Your task to perform on an android device: toggle javascript in the chrome app Image 0: 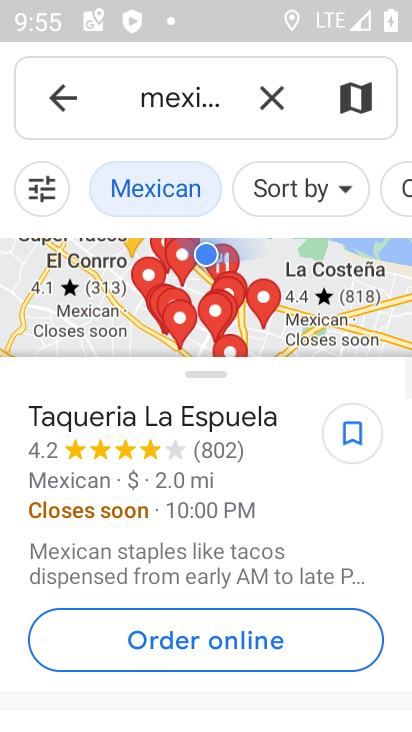
Step 0: press home button
Your task to perform on an android device: toggle javascript in the chrome app Image 1: 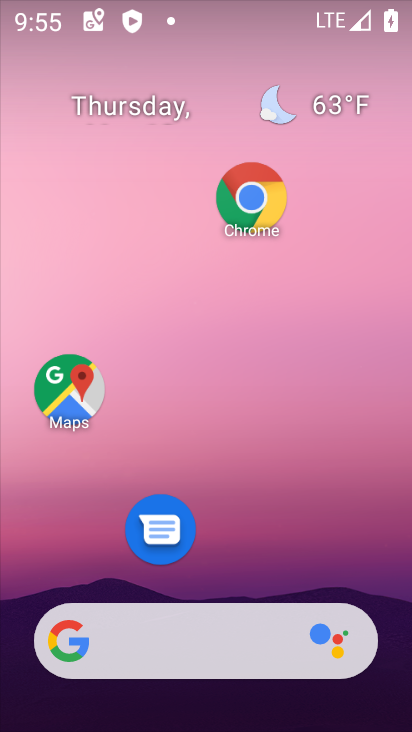
Step 1: click (257, 207)
Your task to perform on an android device: toggle javascript in the chrome app Image 2: 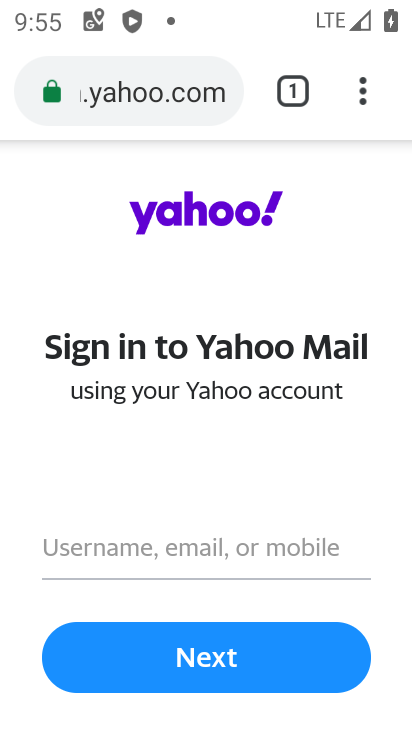
Step 2: click (375, 103)
Your task to perform on an android device: toggle javascript in the chrome app Image 3: 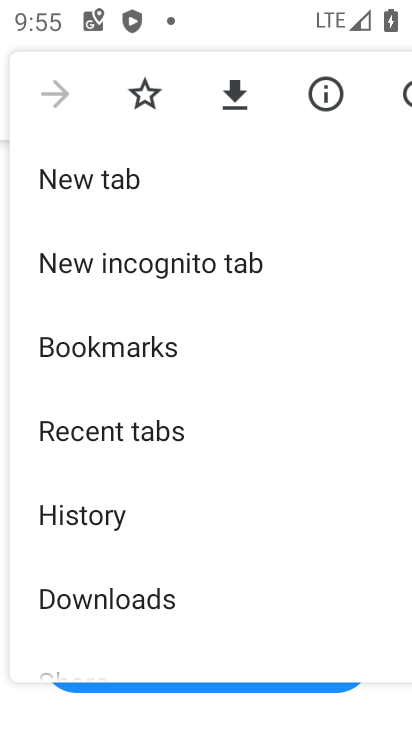
Step 3: drag from (179, 592) to (238, 43)
Your task to perform on an android device: toggle javascript in the chrome app Image 4: 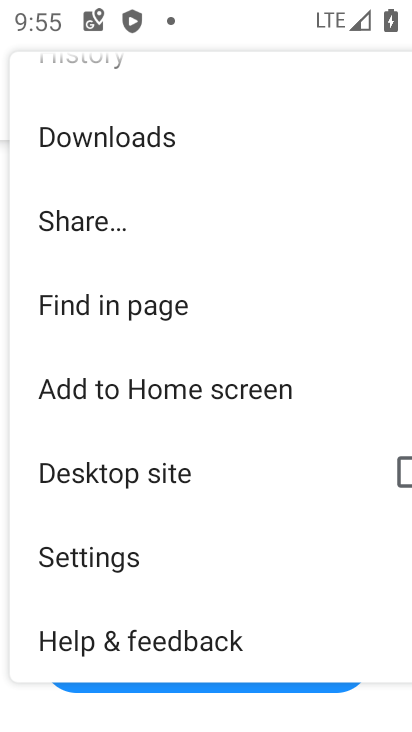
Step 4: click (121, 577)
Your task to perform on an android device: toggle javascript in the chrome app Image 5: 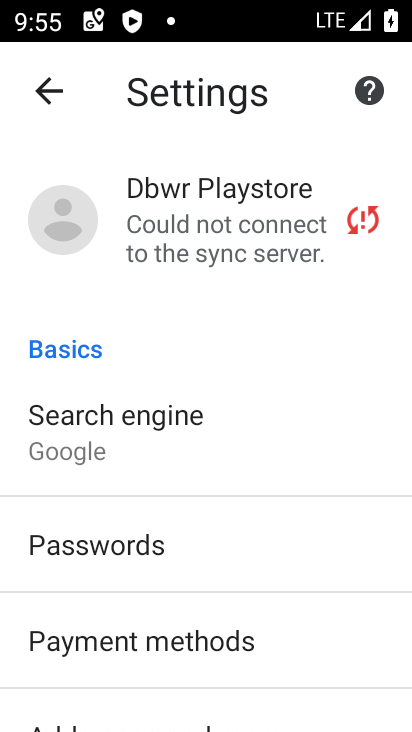
Step 5: drag from (167, 578) to (199, 264)
Your task to perform on an android device: toggle javascript in the chrome app Image 6: 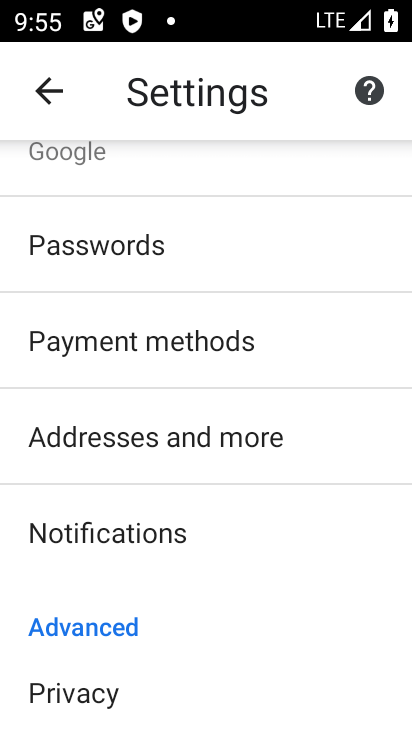
Step 6: drag from (147, 604) to (165, 344)
Your task to perform on an android device: toggle javascript in the chrome app Image 7: 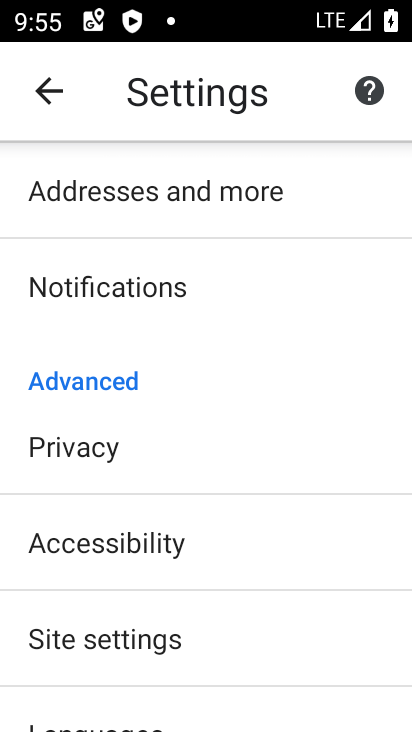
Step 7: click (139, 659)
Your task to perform on an android device: toggle javascript in the chrome app Image 8: 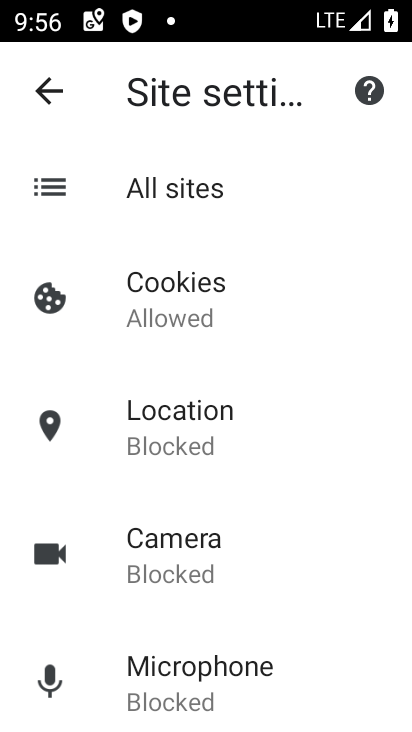
Step 8: drag from (250, 565) to (212, 212)
Your task to perform on an android device: toggle javascript in the chrome app Image 9: 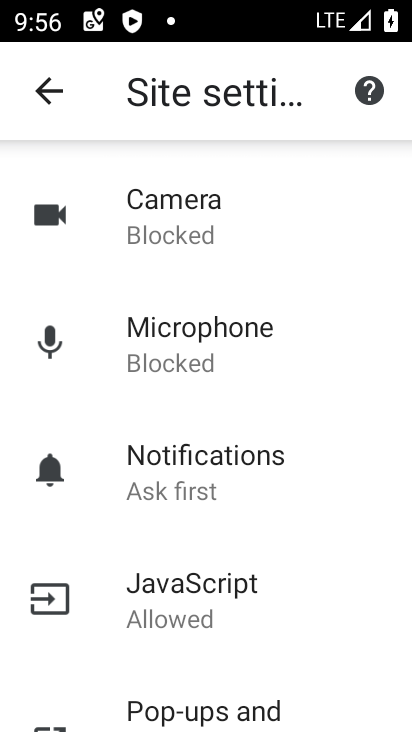
Step 9: click (251, 615)
Your task to perform on an android device: toggle javascript in the chrome app Image 10: 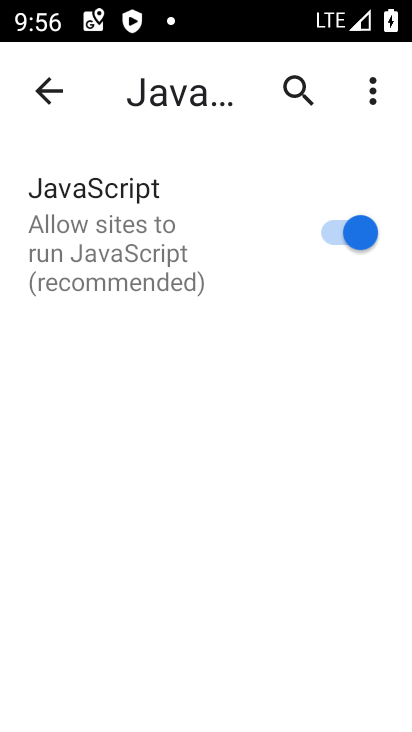
Step 10: click (323, 236)
Your task to perform on an android device: toggle javascript in the chrome app Image 11: 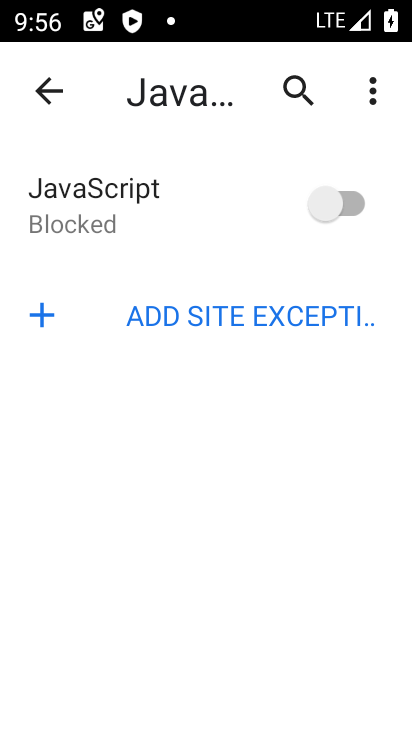
Step 11: task complete